Your task to perform on an android device: toggle javascript in the chrome app Image 0: 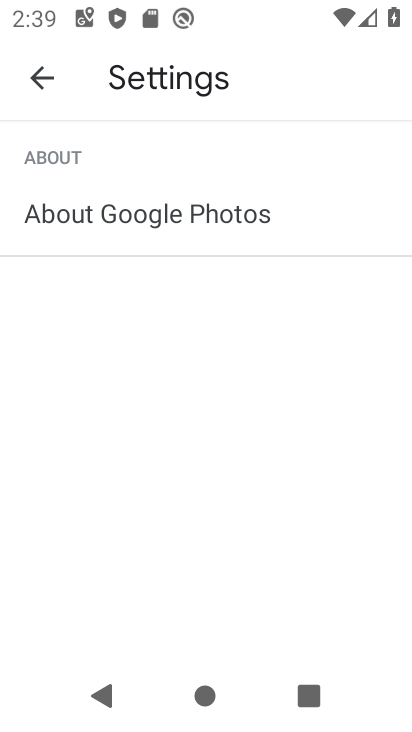
Step 0: press home button
Your task to perform on an android device: toggle javascript in the chrome app Image 1: 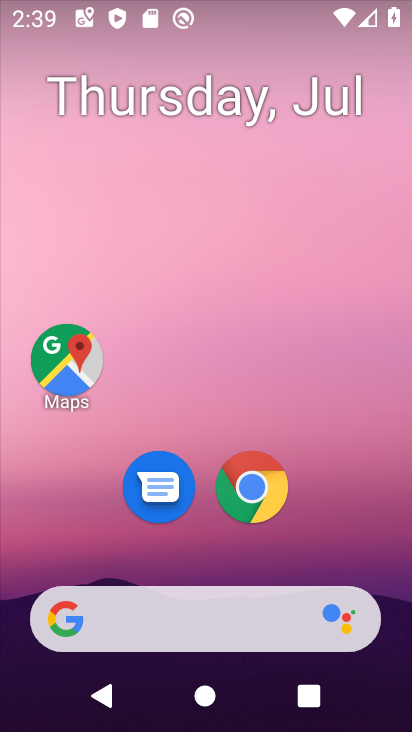
Step 1: drag from (364, 544) to (364, 172)
Your task to perform on an android device: toggle javascript in the chrome app Image 2: 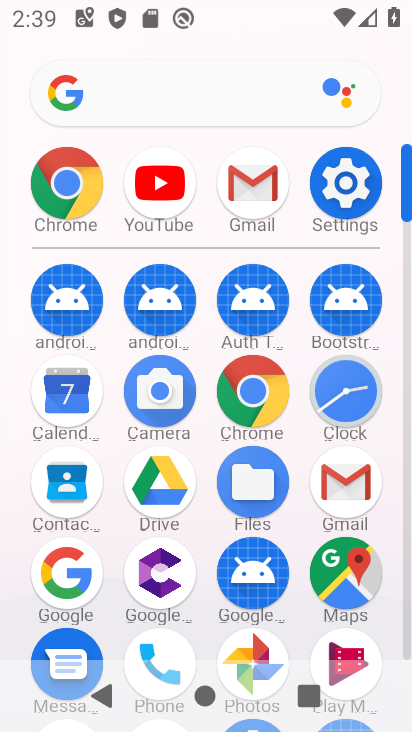
Step 2: click (272, 389)
Your task to perform on an android device: toggle javascript in the chrome app Image 3: 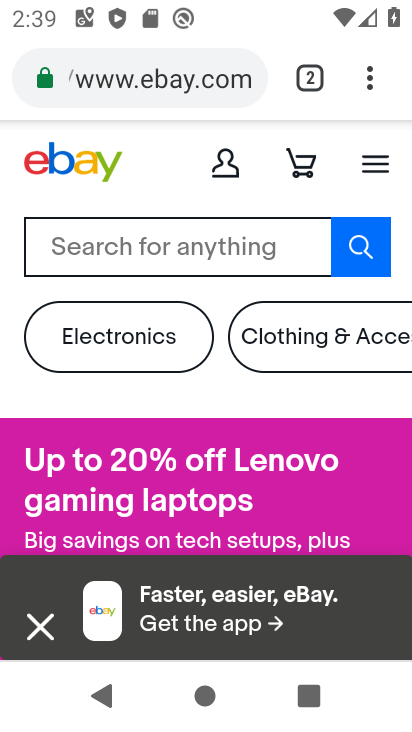
Step 3: click (368, 90)
Your task to perform on an android device: toggle javascript in the chrome app Image 4: 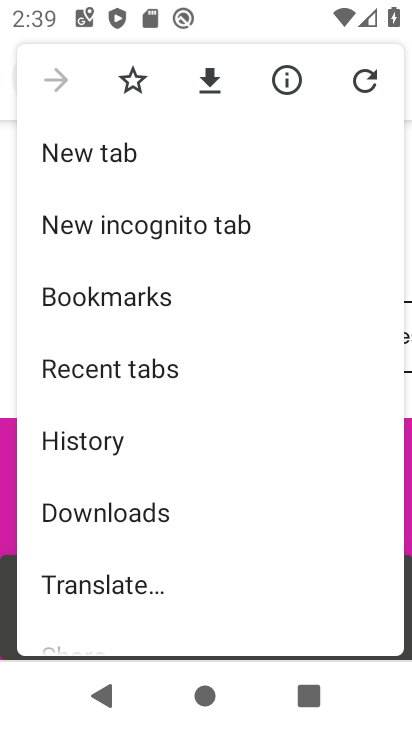
Step 4: drag from (335, 594) to (338, 343)
Your task to perform on an android device: toggle javascript in the chrome app Image 5: 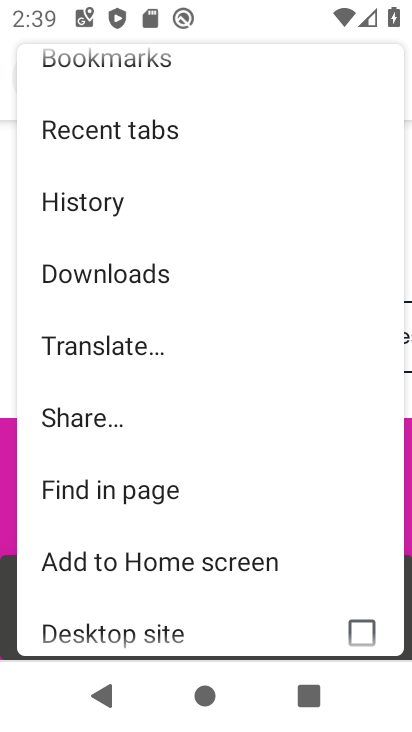
Step 5: drag from (319, 512) to (314, 328)
Your task to perform on an android device: toggle javascript in the chrome app Image 6: 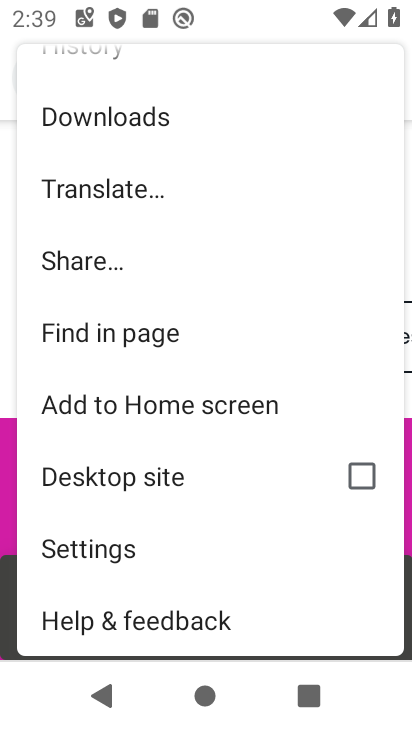
Step 6: click (142, 558)
Your task to perform on an android device: toggle javascript in the chrome app Image 7: 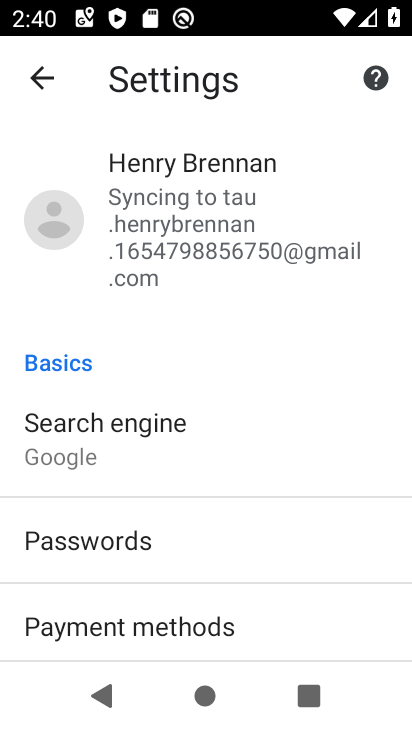
Step 7: drag from (274, 552) to (290, 471)
Your task to perform on an android device: toggle javascript in the chrome app Image 8: 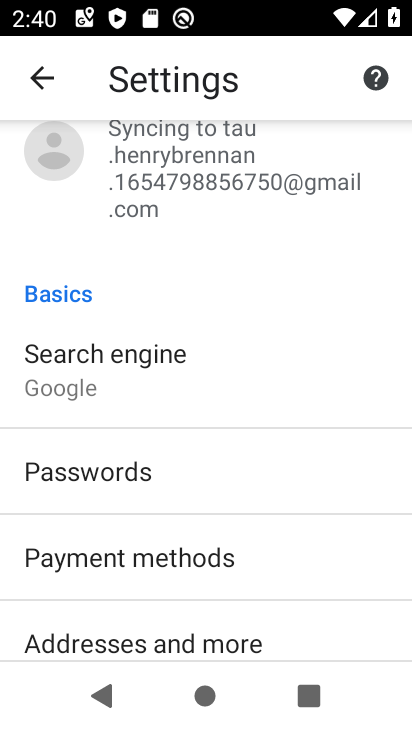
Step 8: drag from (313, 559) to (326, 459)
Your task to perform on an android device: toggle javascript in the chrome app Image 9: 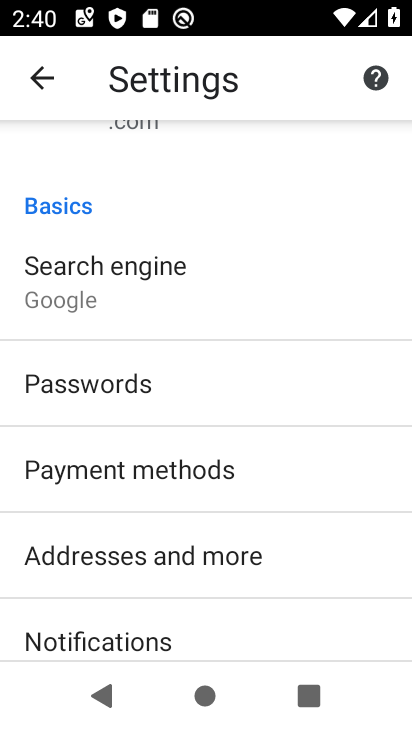
Step 9: drag from (319, 564) to (319, 452)
Your task to perform on an android device: toggle javascript in the chrome app Image 10: 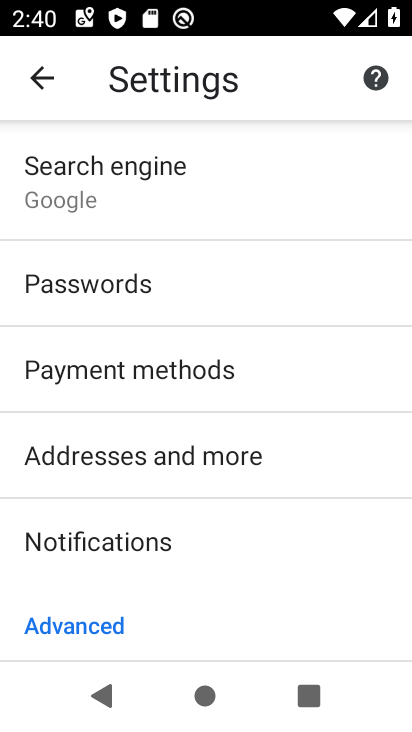
Step 10: drag from (314, 570) to (322, 458)
Your task to perform on an android device: toggle javascript in the chrome app Image 11: 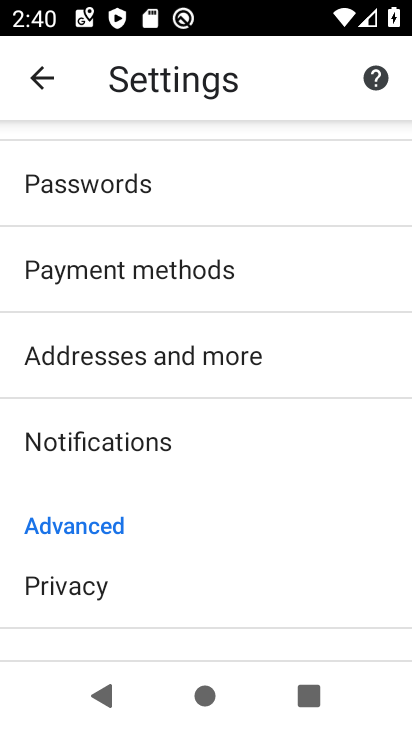
Step 11: drag from (312, 548) to (312, 437)
Your task to perform on an android device: toggle javascript in the chrome app Image 12: 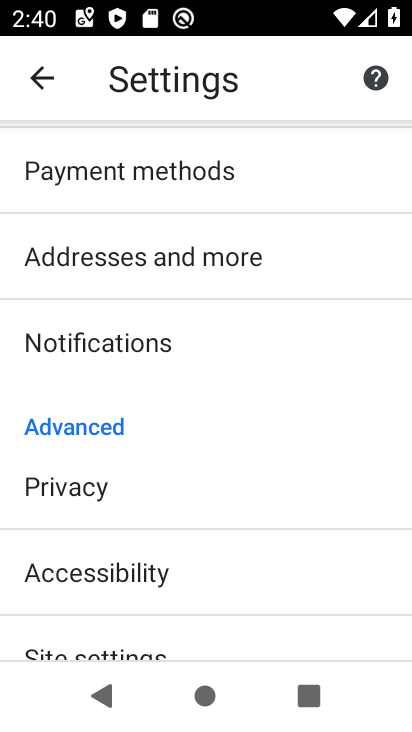
Step 12: drag from (312, 556) to (308, 427)
Your task to perform on an android device: toggle javascript in the chrome app Image 13: 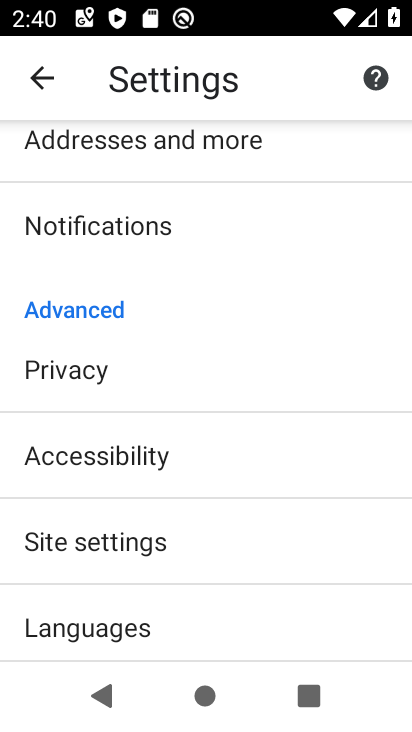
Step 13: drag from (300, 525) to (315, 372)
Your task to perform on an android device: toggle javascript in the chrome app Image 14: 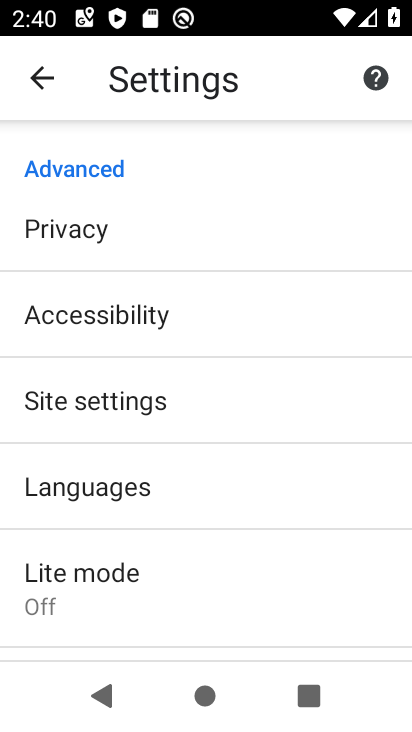
Step 14: click (229, 422)
Your task to perform on an android device: toggle javascript in the chrome app Image 15: 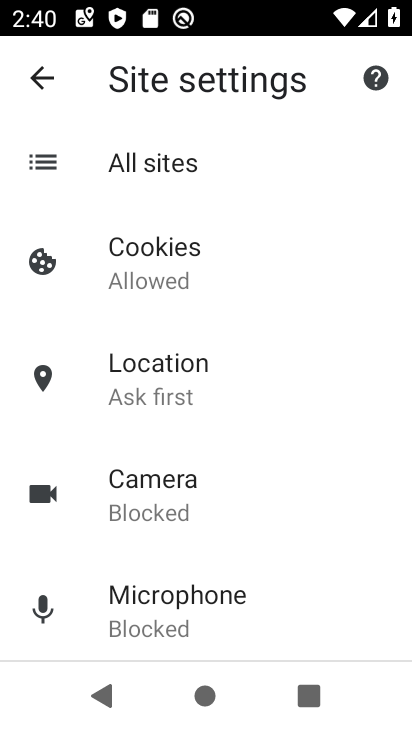
Step 15: drag from (313, 554) to (308, 367)
Your task to perform on an android device: toggle javascript in the chrome app Image 16: 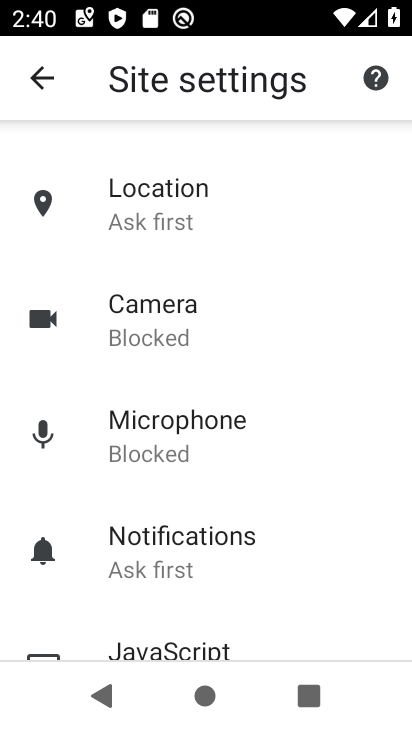
Step 16: drag from (315, 508) to (316, 401)
Your task to perform on an android device: toggle javascript in the chrome app Image 17: 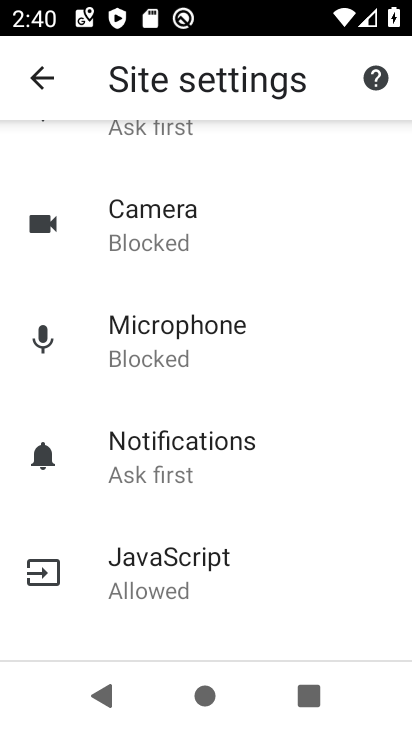
Step 17: drag from (323, 537) to (328, 430)
Your task to perform on an android device: toggle javascript in the chrome app Image 18: 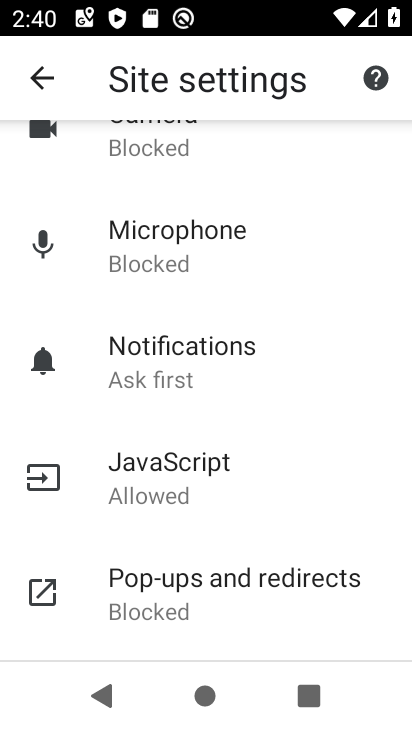
Step 18: click (235, 486)
Your task to perform on an android device: toggle javascript in the chrome app Image 19: 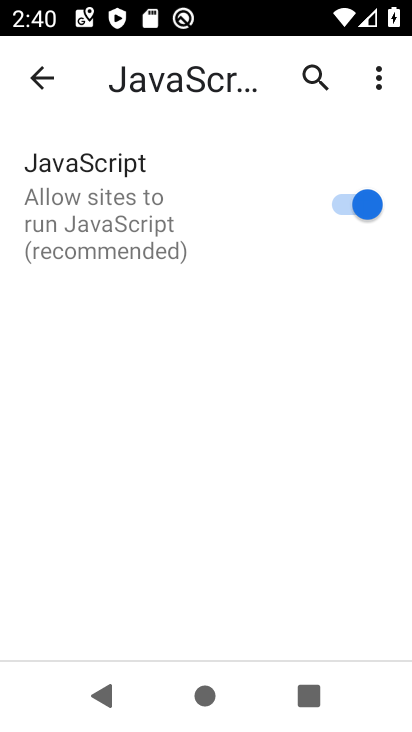
Step 19: click (382, 203)
Your task to perform on an android device: toggle javascript in the chrome app Image 20: 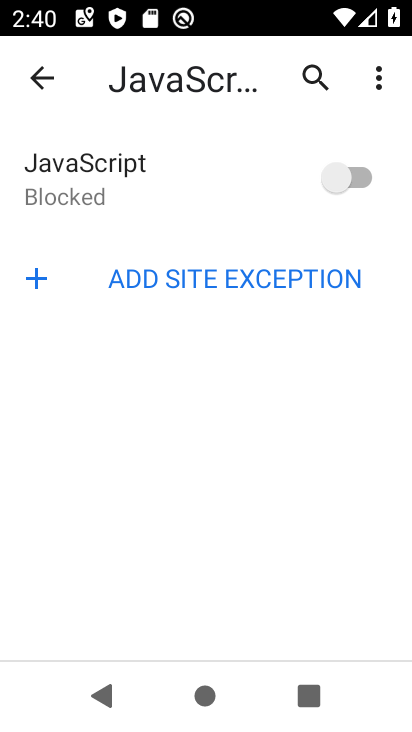
Step 20: task complete